Your task to perform on an android device: toggle notifications settings in the gmail app Image 0: 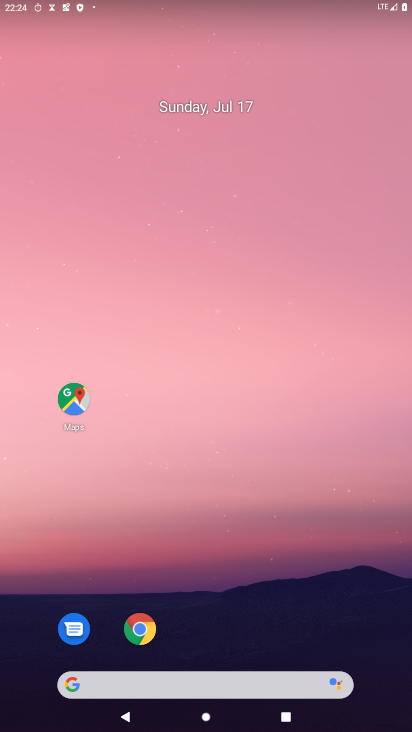
Step 0: drag from (231, 726) to (231, 194)
Your task to perform on an android device: toggle notifications settings in the gmail app Image 1: 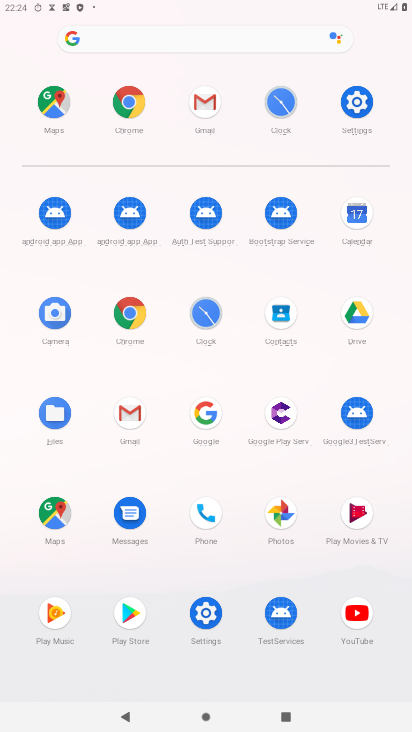
Step 1: click (130, 423)
Your task to perform on an android device: toggle notifications settings in the gmail app Image 2: 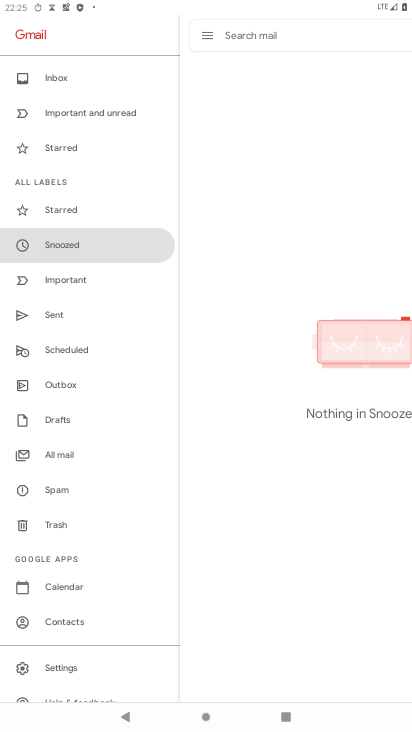
Step 2: click (54, 667)
Your task to perform on an android device: toggle notifications settings in the gmail app Image 3: 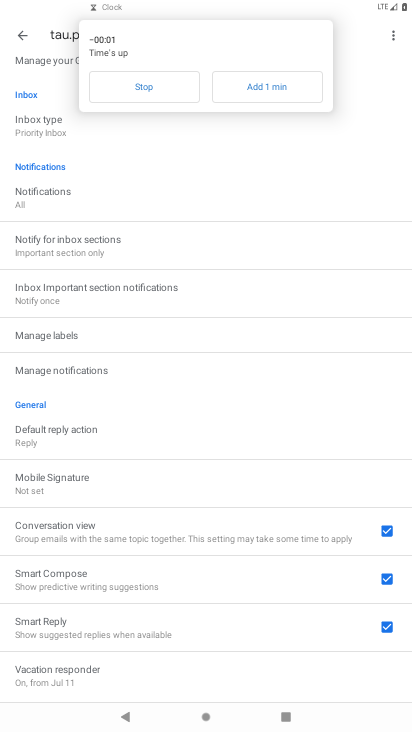
Step 3: click (41, 194)
Your task to perform on an android device: toggle notifications settings in the gmail app Image 4: 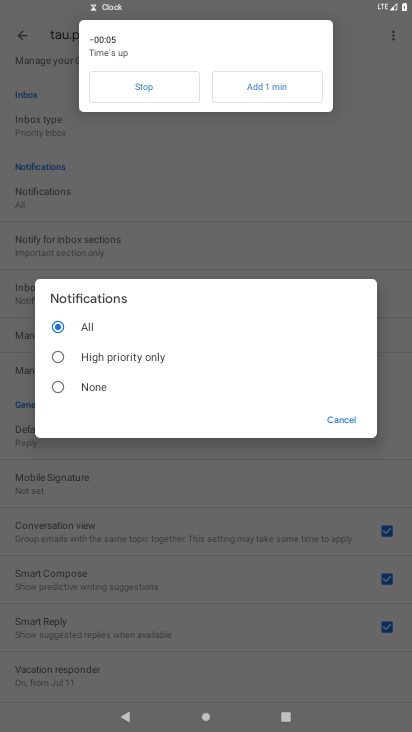
Step 4: click (55, 389)
Your task to perform on an android device: toggle notifications settings in the gmail app Image 5: 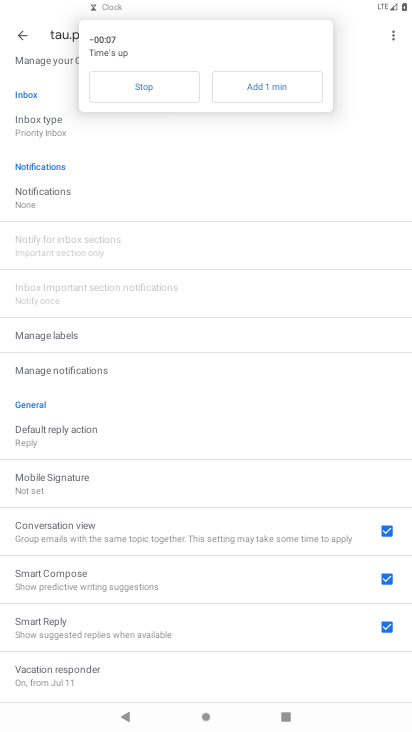
Step 5: task complete